Your task to perform on an android device: See recent photos Image 0: 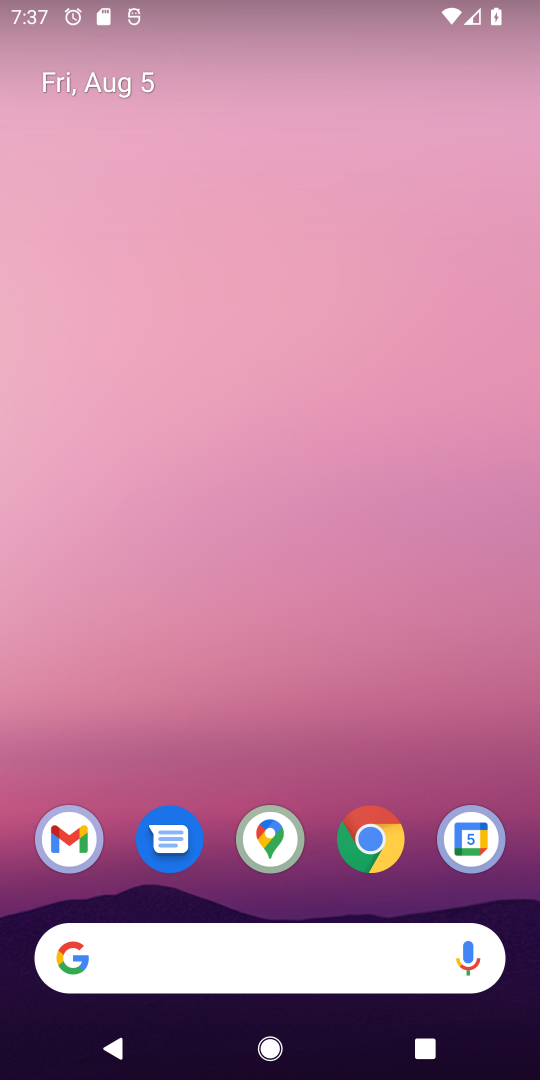
Step 0: drag from (262, 751) to (265, 47)
Your task to perform on an android device: See recent photos Image 1: 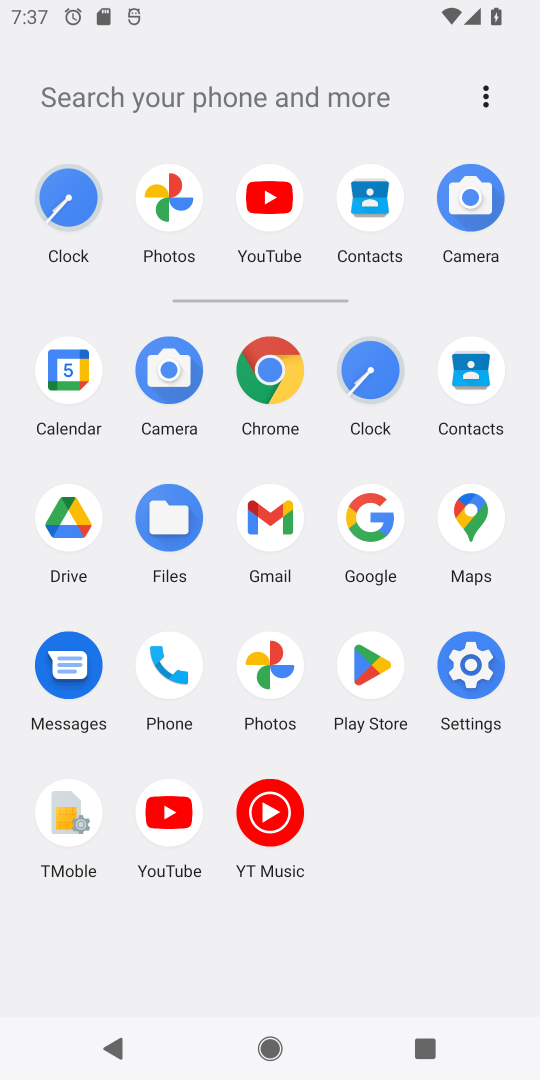
Step 1: click (170, 211)
Your task to perform on an android device: See recent photos Image 2: 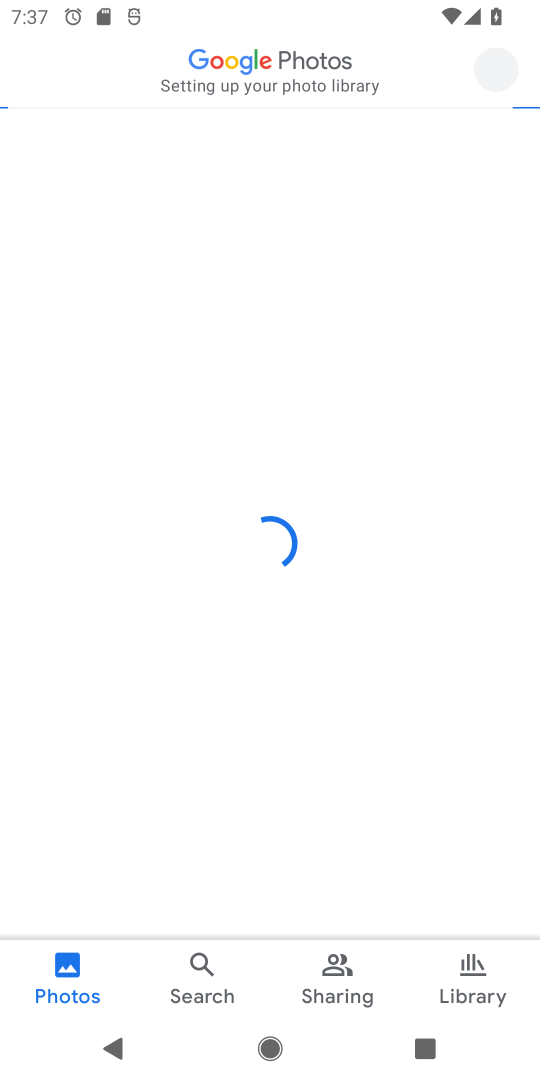
Step 2: task complete